Your task to perform on an android device: check android version Image 0: 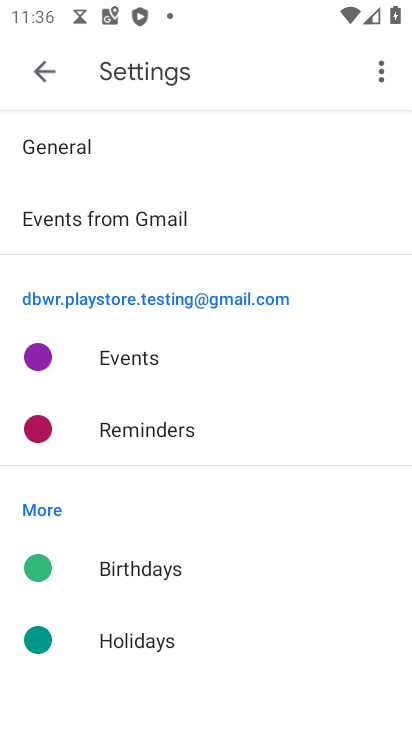
Step 0: press home button
Your task to perform on an android device: check android version Image 1: 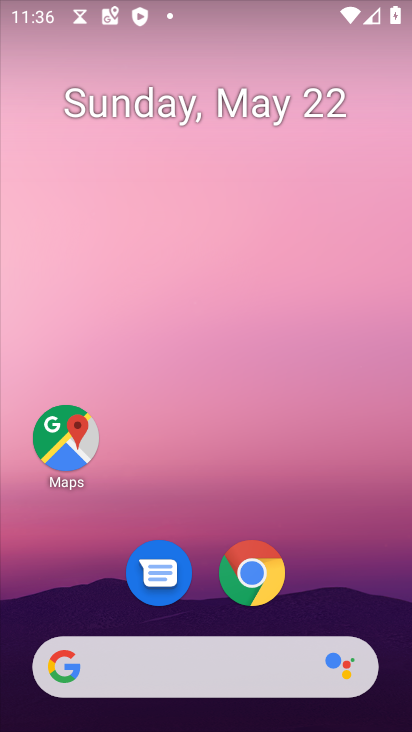
Step 1: drag from (150, 670) to (310, 100)
Your task to perform on an android device: check android version Image 2: 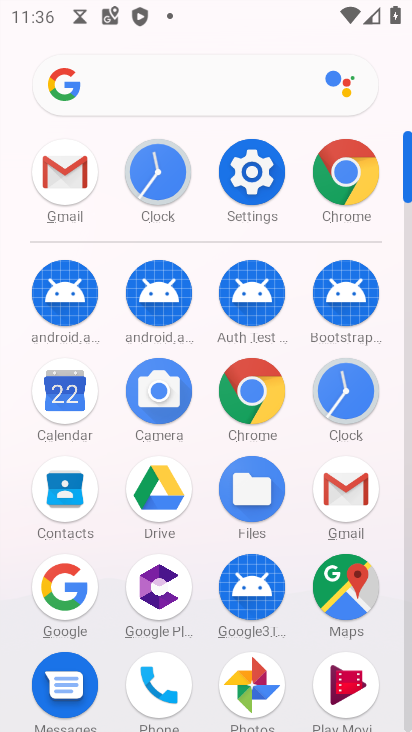
Step 2: click (255, 173)
Your task to perform on an android device: check android version Image 3: 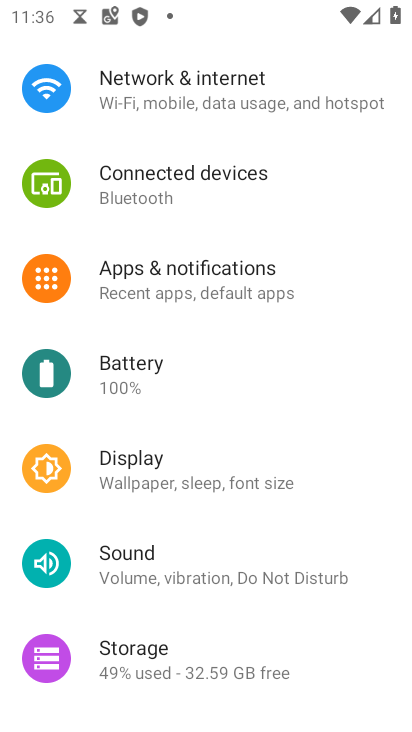
Step 3: drag from (263, 662) to (330, 178)
Your task to perform on an android device: check android version Image 4: 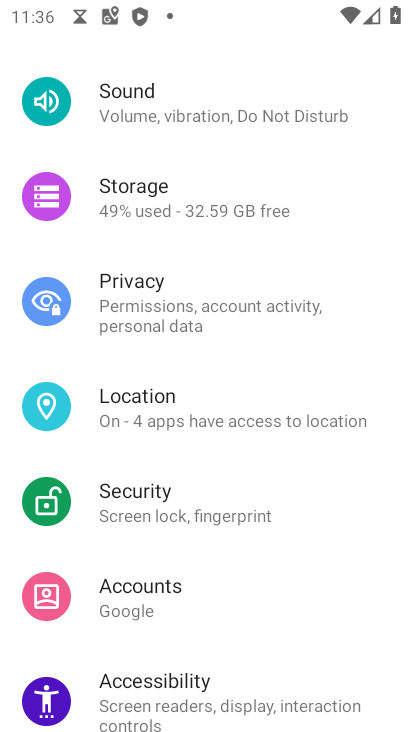
Step 4: drag from (244, 646) to (342, 114)
Your task to perform on an android device: check android version Image 5: 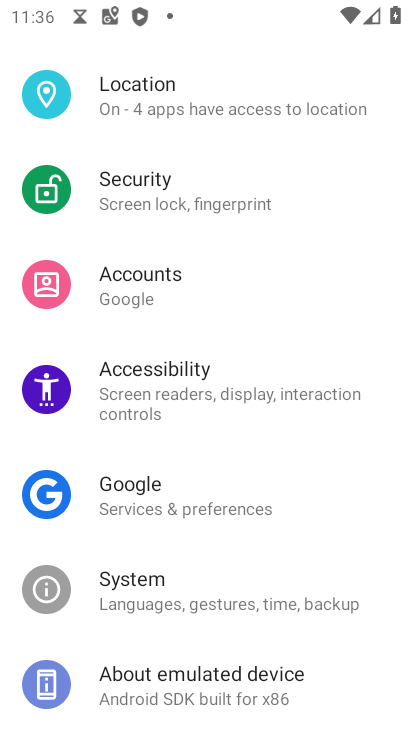
Step 5: drag from (229, 622) to (306, 211)
Your task to perform on an android device: check android version Image 6: 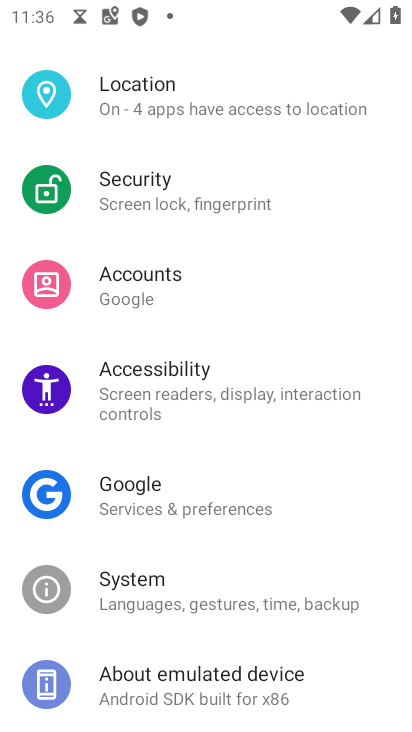
Step 6: click (205, 679)
Your task to perform on an android device: check android version Image 7: 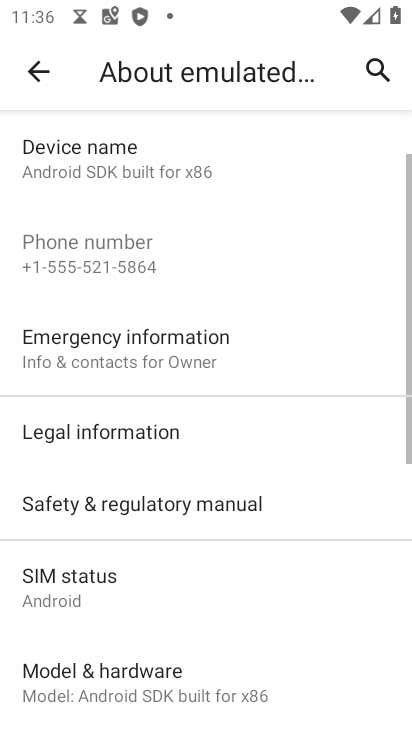
Step 7: drag from (223, 645) to (292, 224)
Your task to perform on an android device: check android version Image 8: 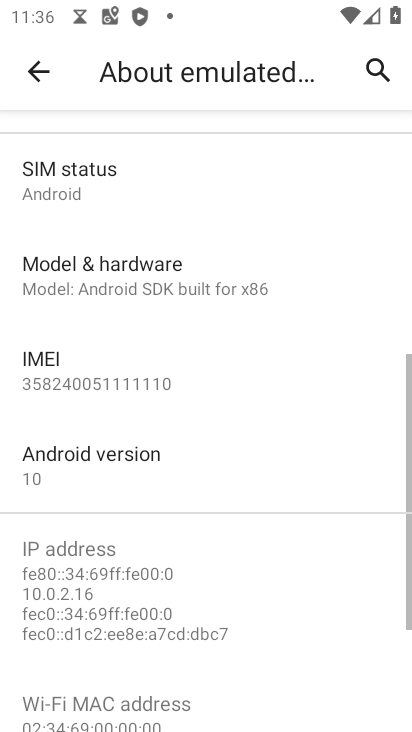
Step 8: click (98, 453)
Your task to perform on an android device: check android version Image 9: 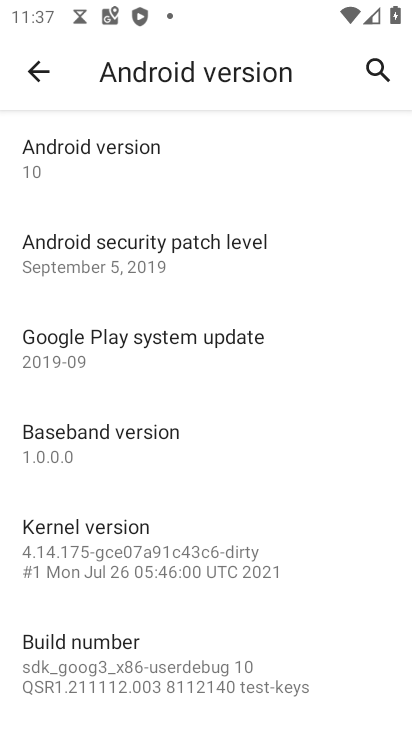
Step 9: task complete